Your task to perform on an android device: Where can I buy a nice beach sandals? Image 0: 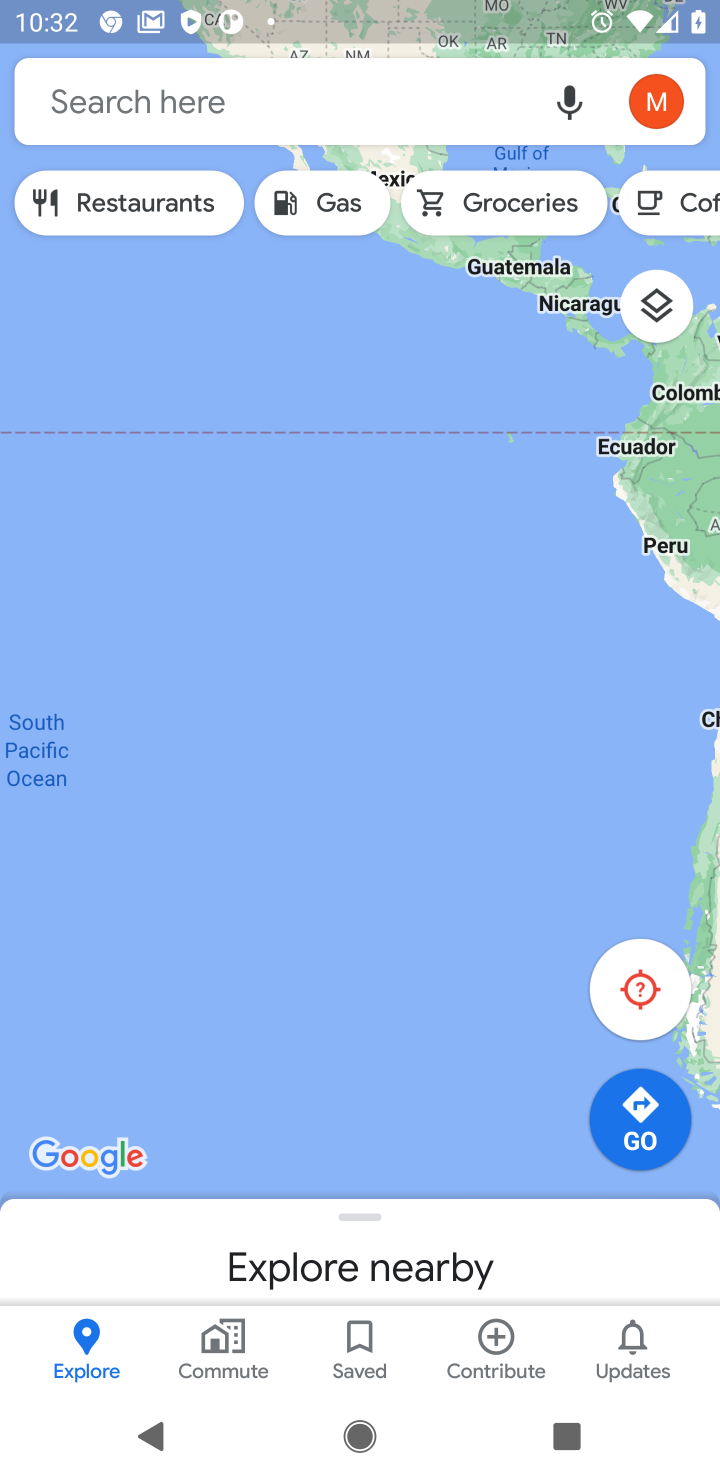
Step 0: press home button
Your task to perform on an android device: Where can I buy a nice beach sandals? Image 1: 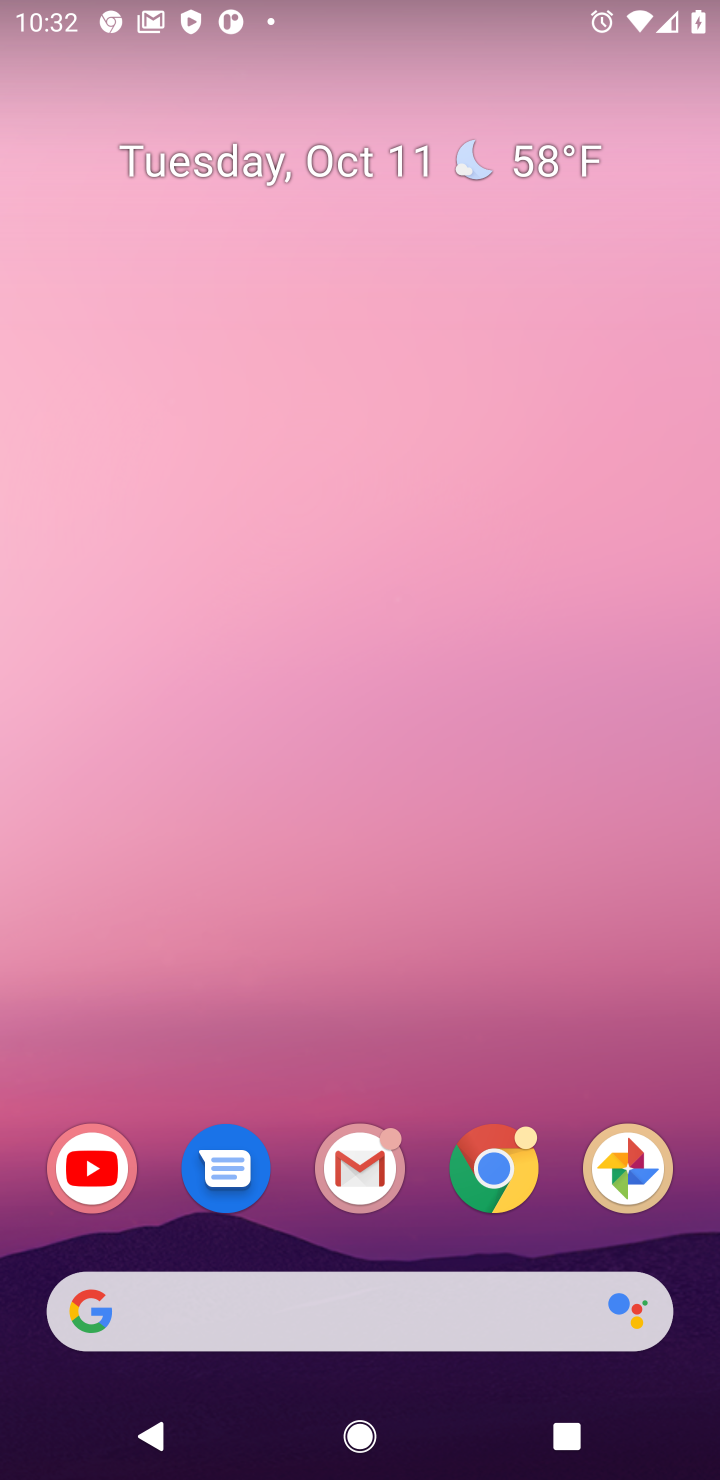
Step 1: click (482, 1192)
Your task to perform on an android device: Where can I buy a nice beach sandals? Image 2: 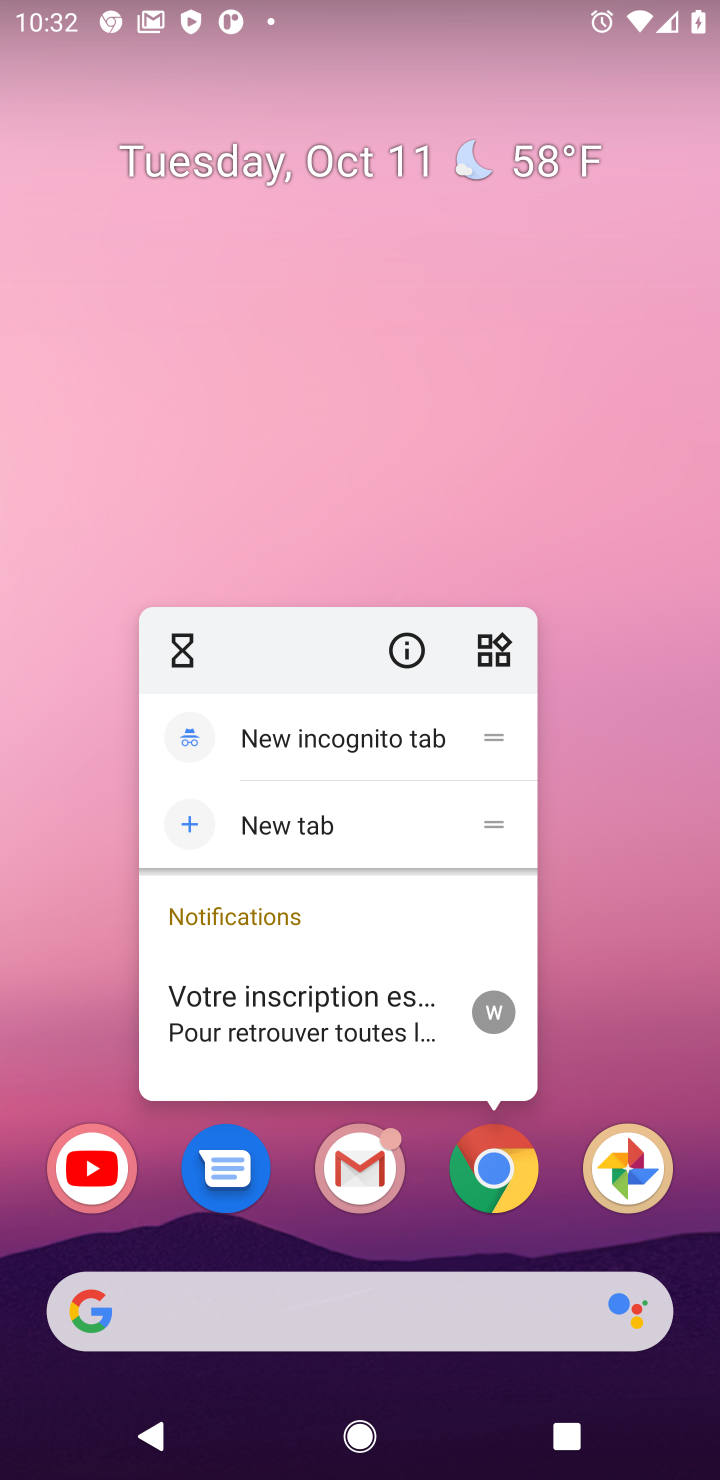
Step 2: press back button
Your task to perform on an android device: Where can I buy a nice beach sandals? Image 3: 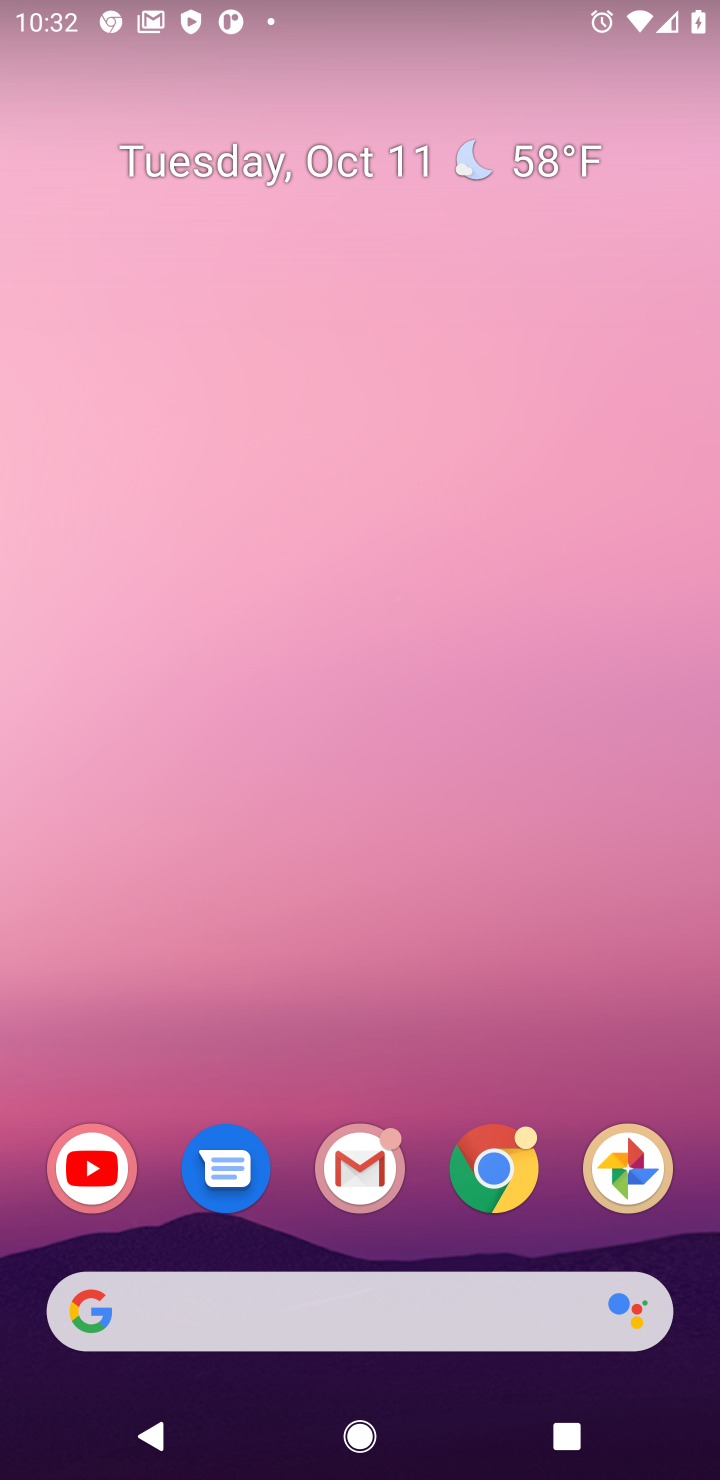
Step 3: press home button
Your task to perform on an android device: Where can I buy a nice beach sandals? Image 4: 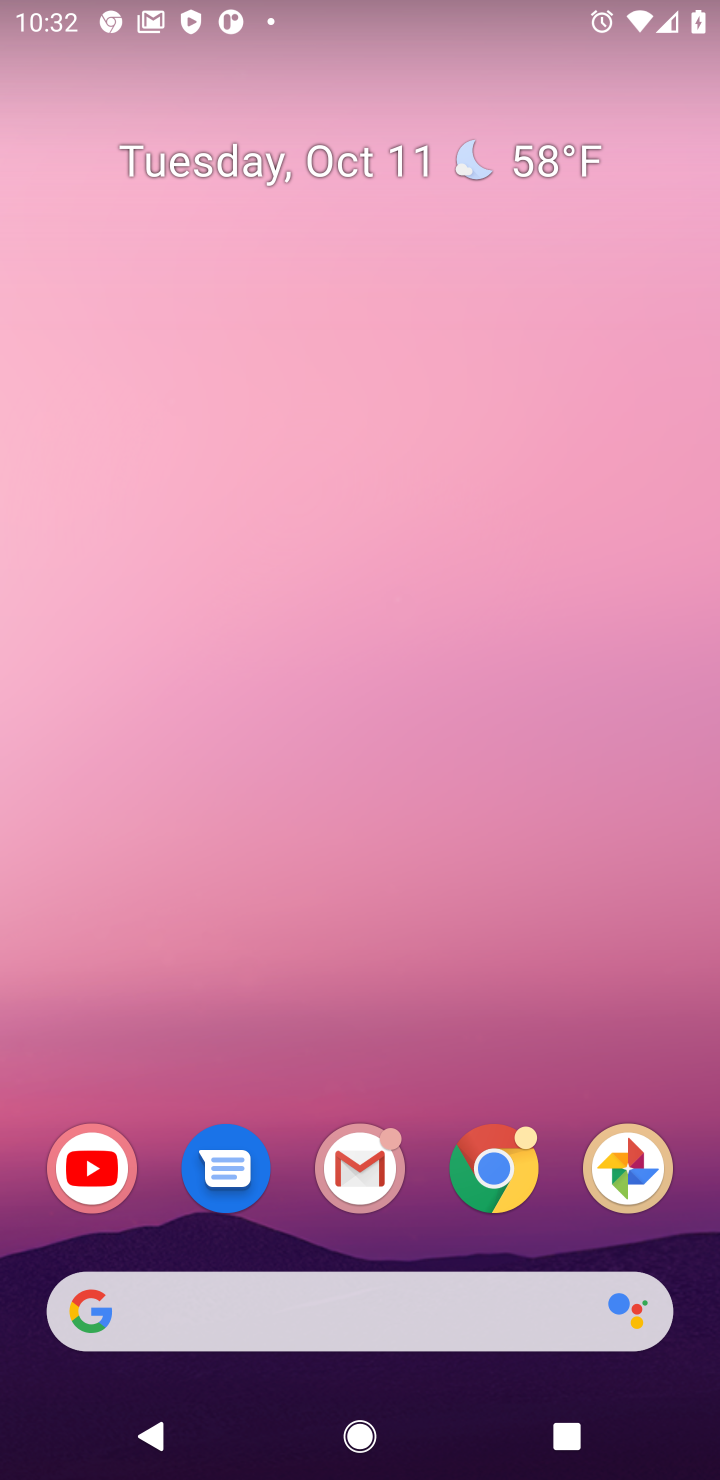
Step 4: click (500, 1181)
Your task to perform on an android device: Where can I buy a nice beach sandals? Image 5: 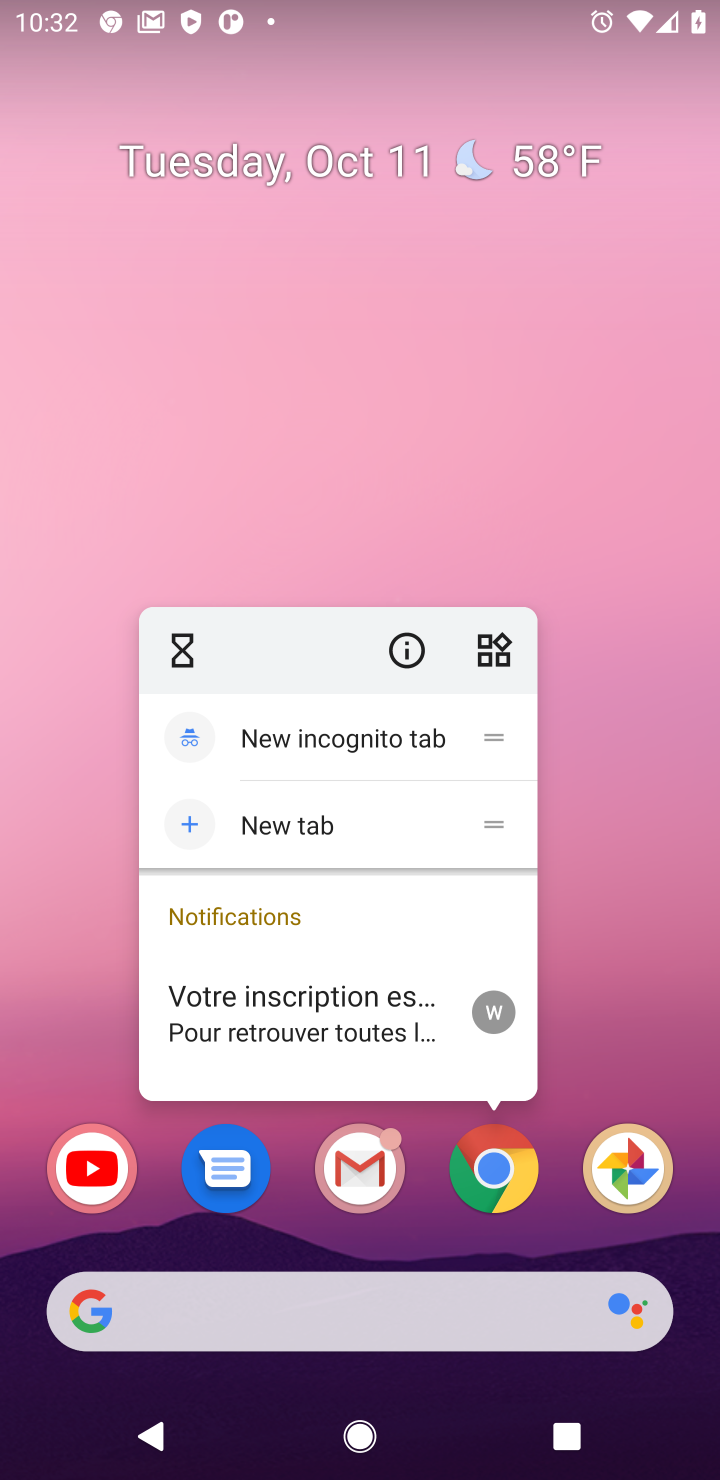
Step 5: click (483, 1162)
Your task to perform on an android device: Where can I buy a nice beach sandals? Image 6: 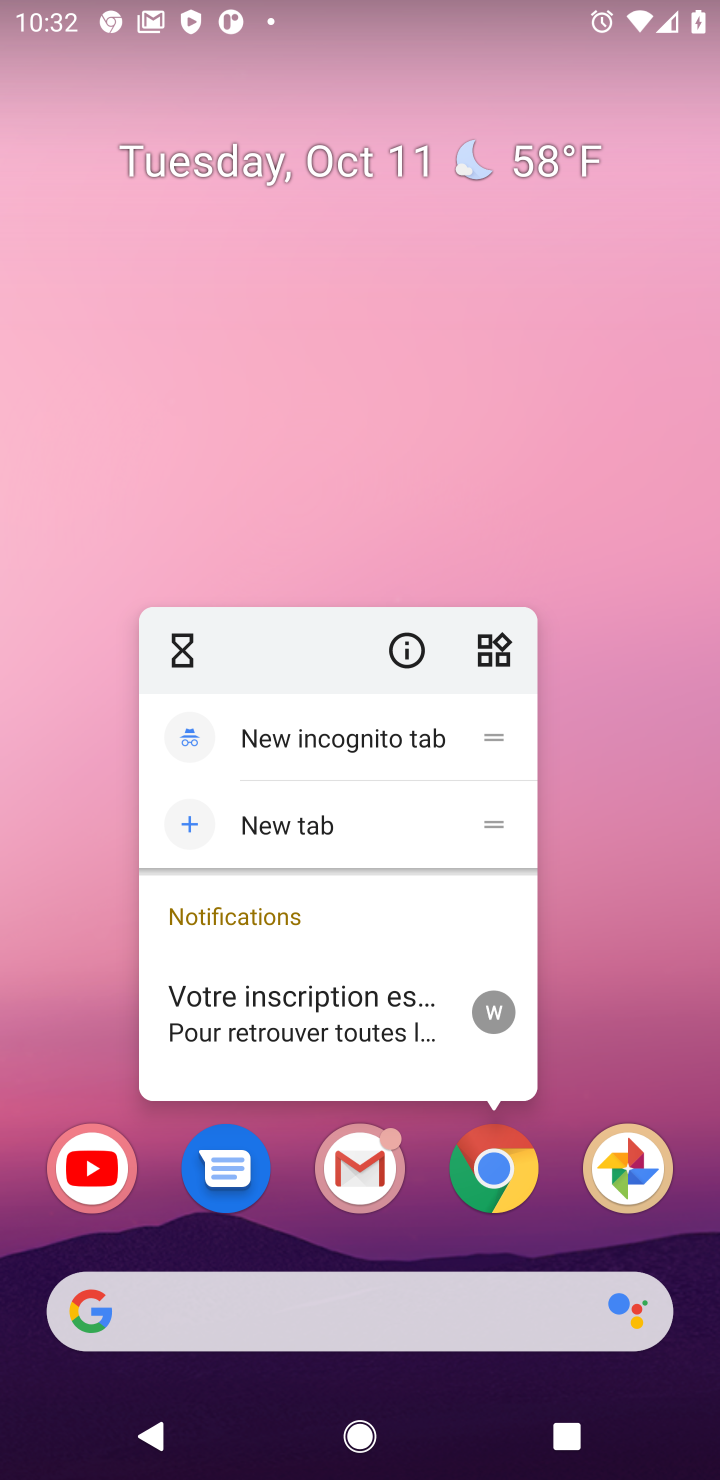
Step 6: click (492, 1155)
Your task to perform on an android device: Where can I buy a nice beach sandals? Image 7: 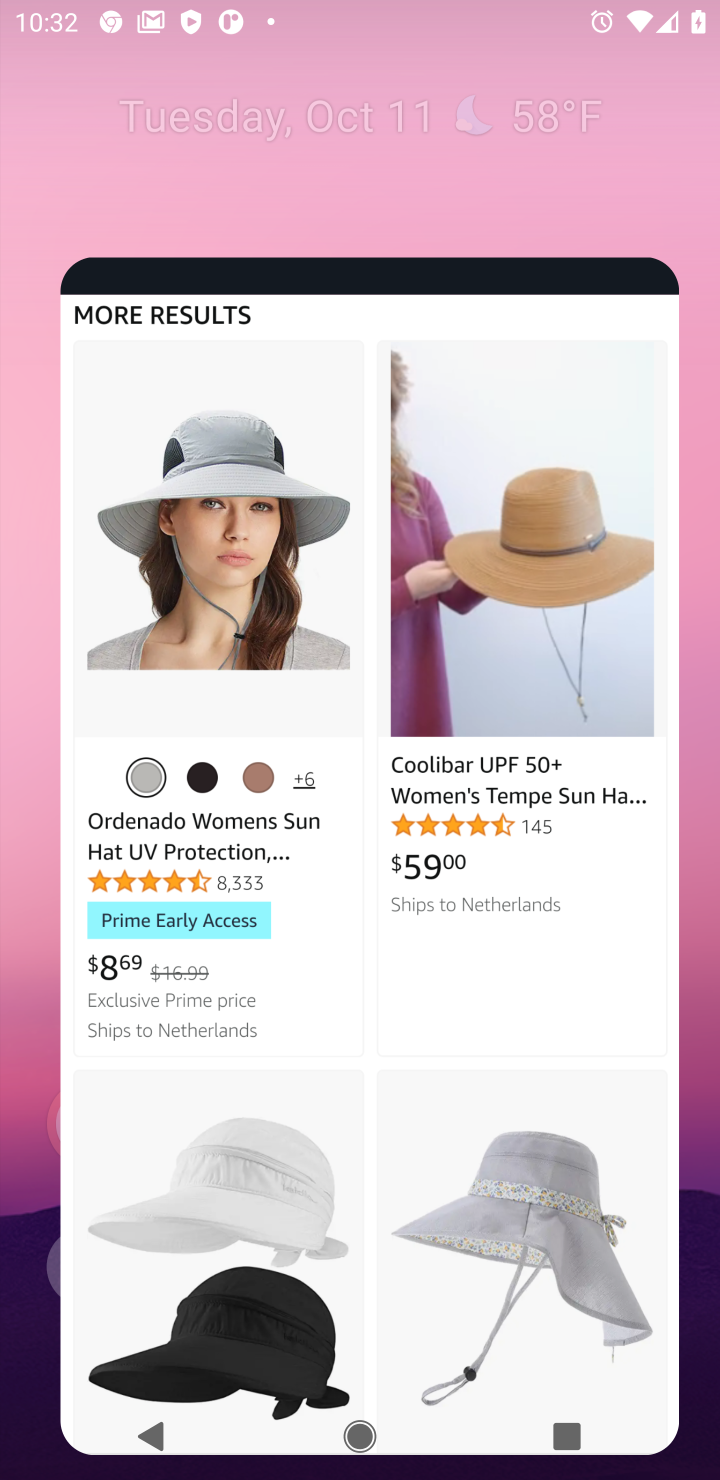
Step 7: press home button
Your task to perform on an android device: Where can I buy a nice beach sandals? Image 8: 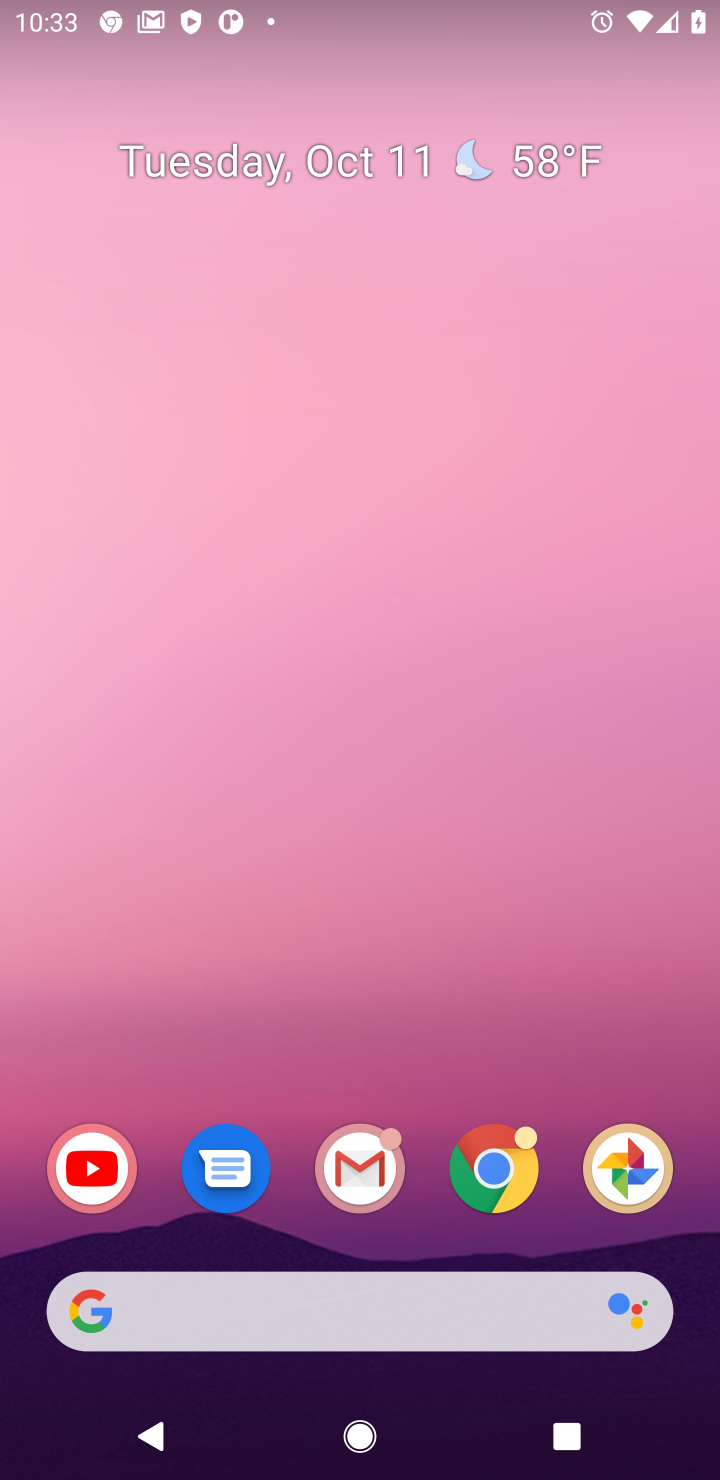
Step 8: click (511, 1177)
Your task to perform on an android device: Where can I buy a nice beach sandals? Image 9: 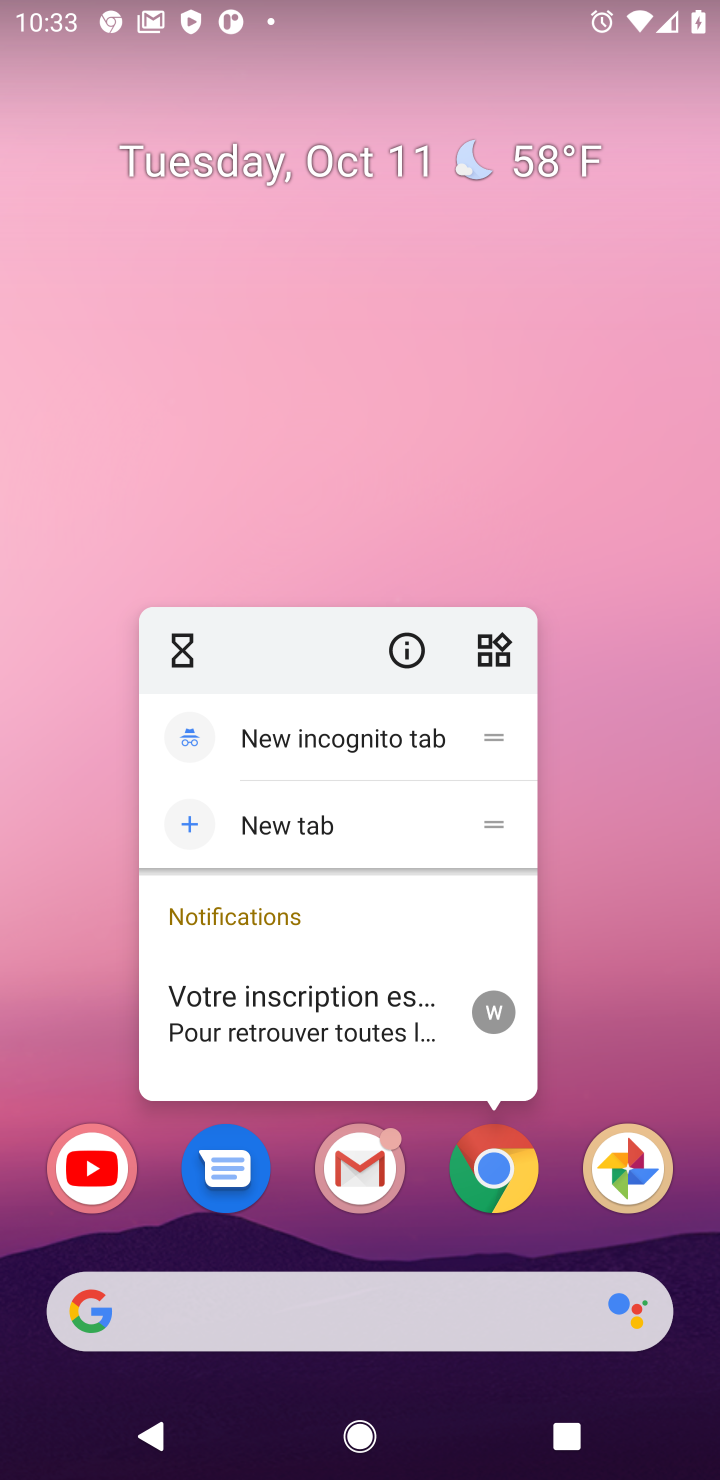
Step 9: click (483, 1159)
Your task to perform on an android device: Where can I buy a nice beach sandals? Image 10: 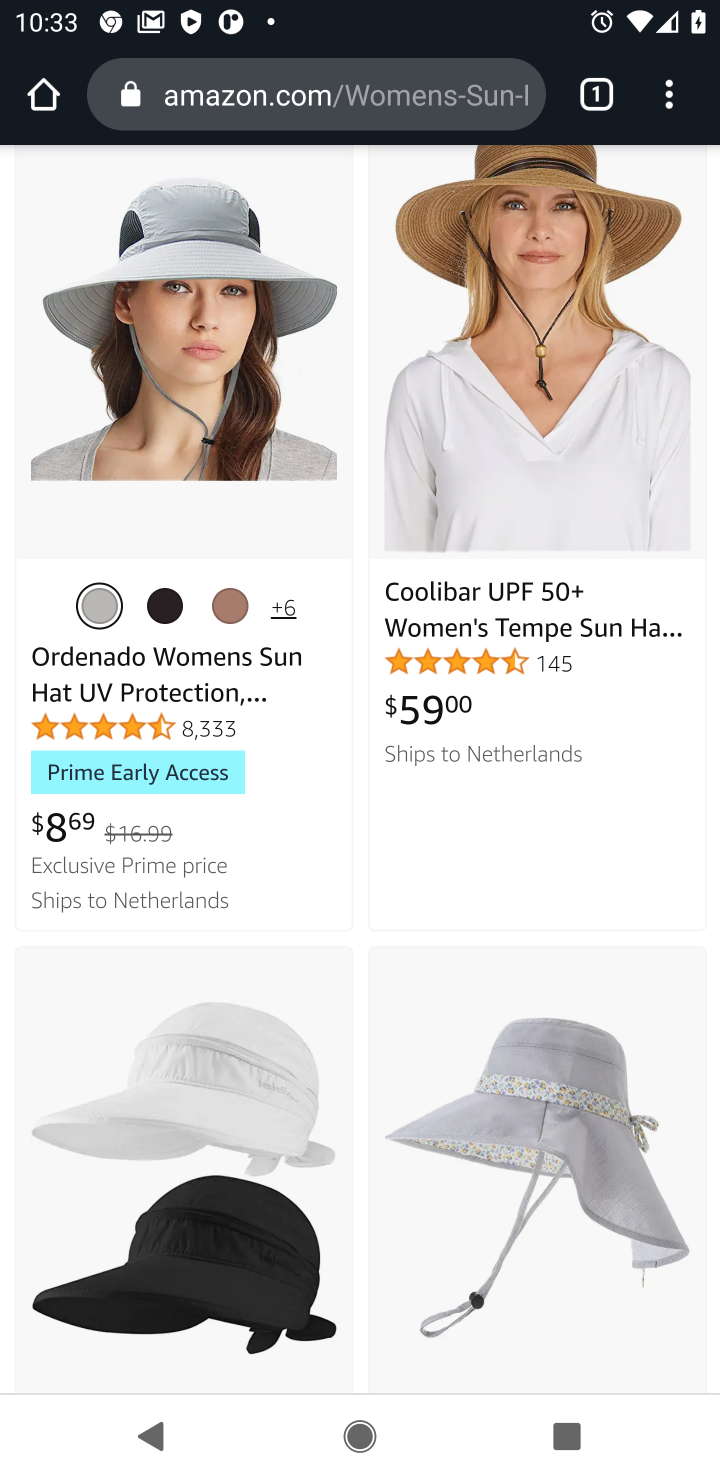
Step 10: click (286, 97)
Your task to perform on an android device: Where can I buy a nice beach sandals? Image 11: 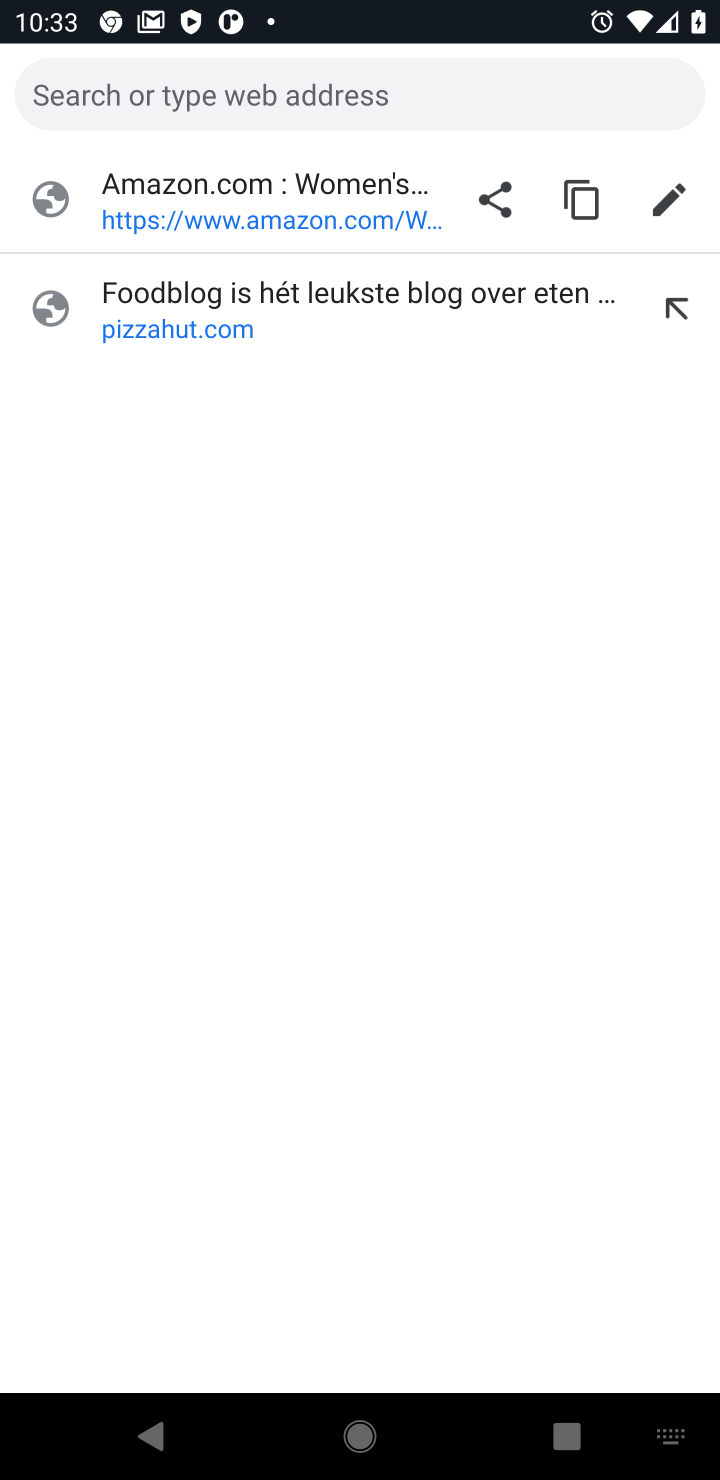
Step 11: type "where can i buy nice beach sandals"
Your task to perform on an android device: Where can I buy a nice beach sandals? Image 12: 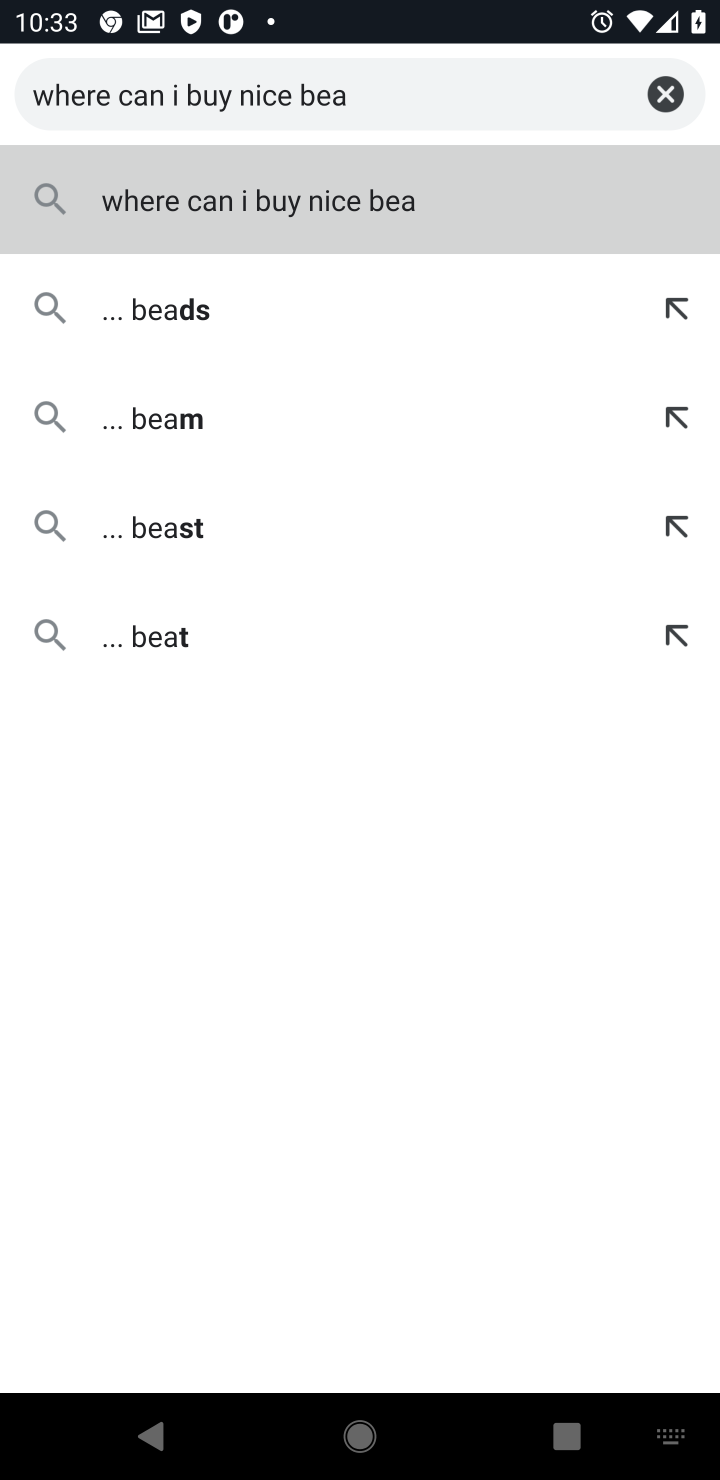
Step 12: click (302, 205)
Your task to perform on an android device: Where can I buy a nice beach sandals? Image 13: 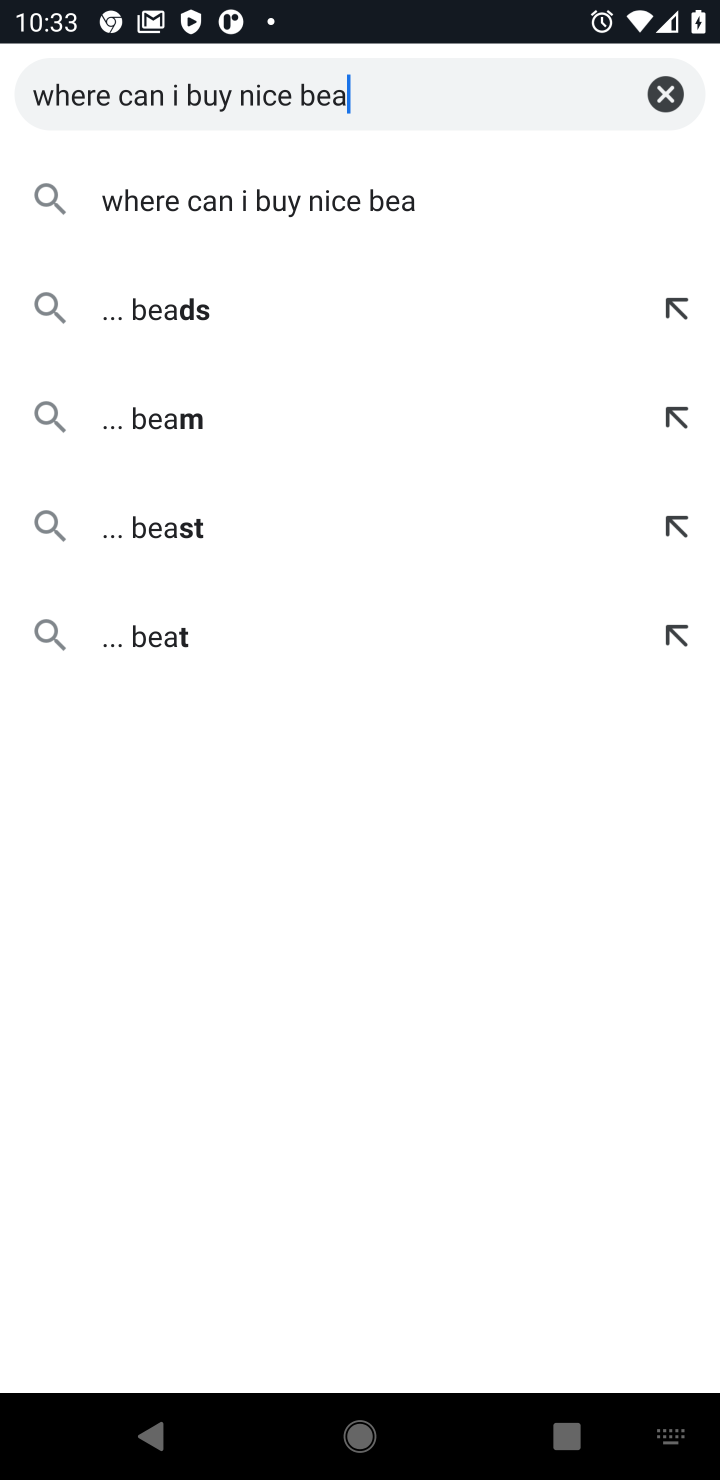
Step 13: click (672, 94)
Your task to perform on an android device: Where can I buy a nice beach sandals? Image 14: 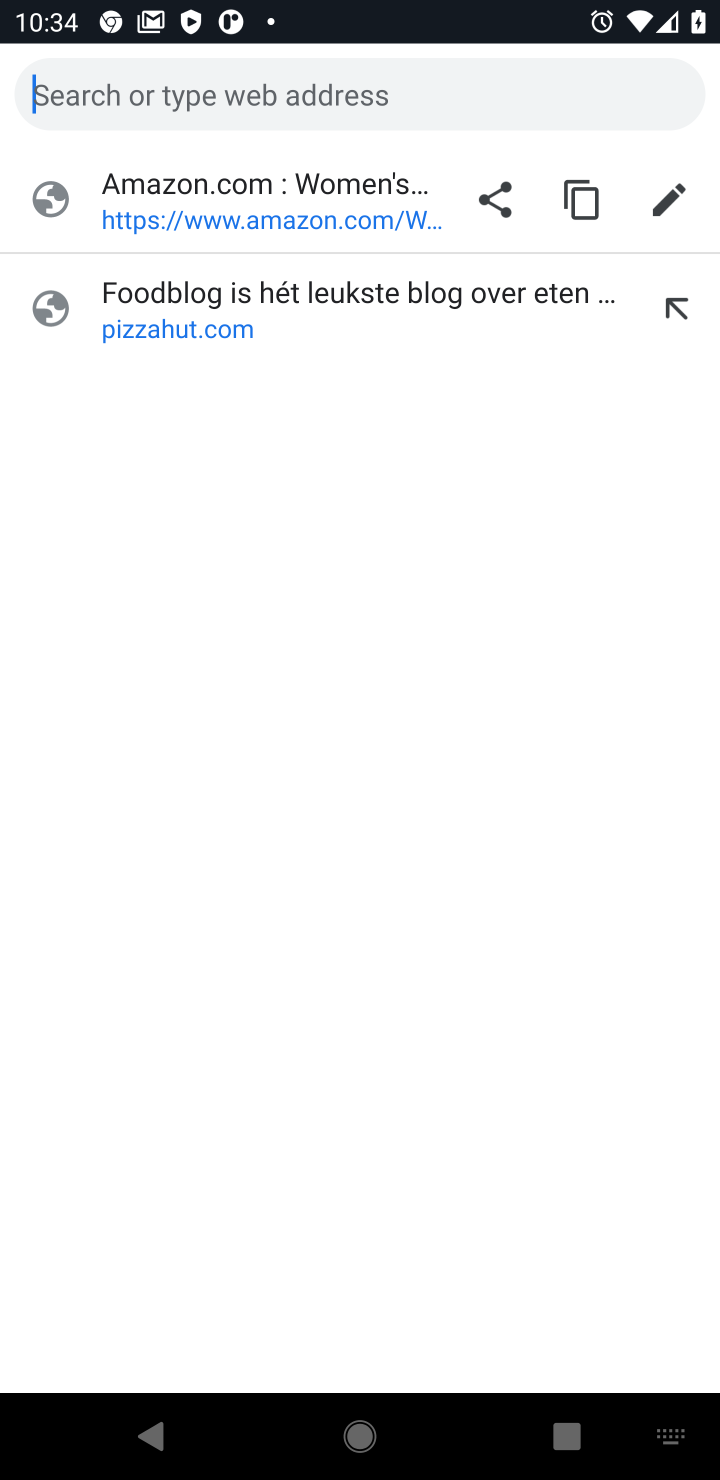
Step 14: type "where can i buy a nice beach sandals"
Your task to perform on an android device: Where can I buy a nice beach sandals? Image 15: 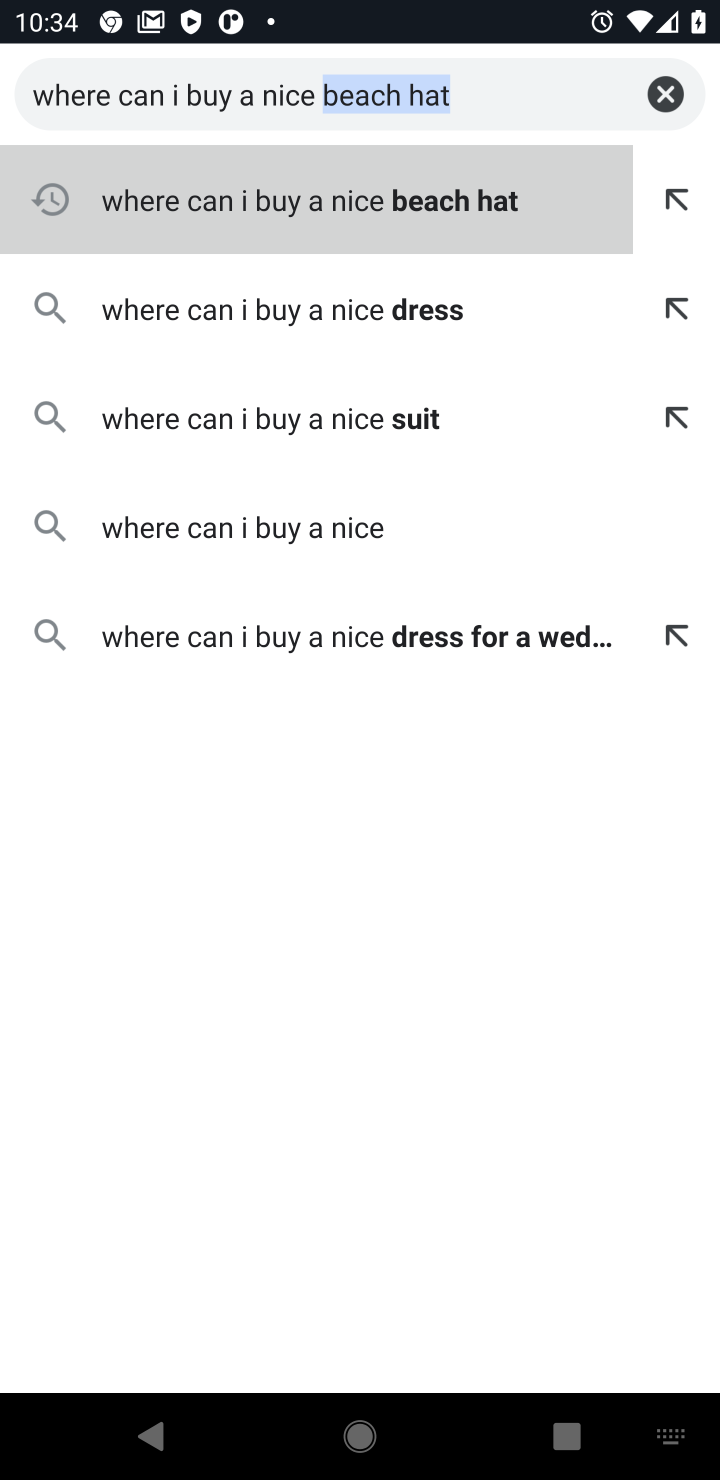
Step 15: click (472, 89)
Your task to perform on an android device: Where can I buy a nice beach sandals? Image 16: 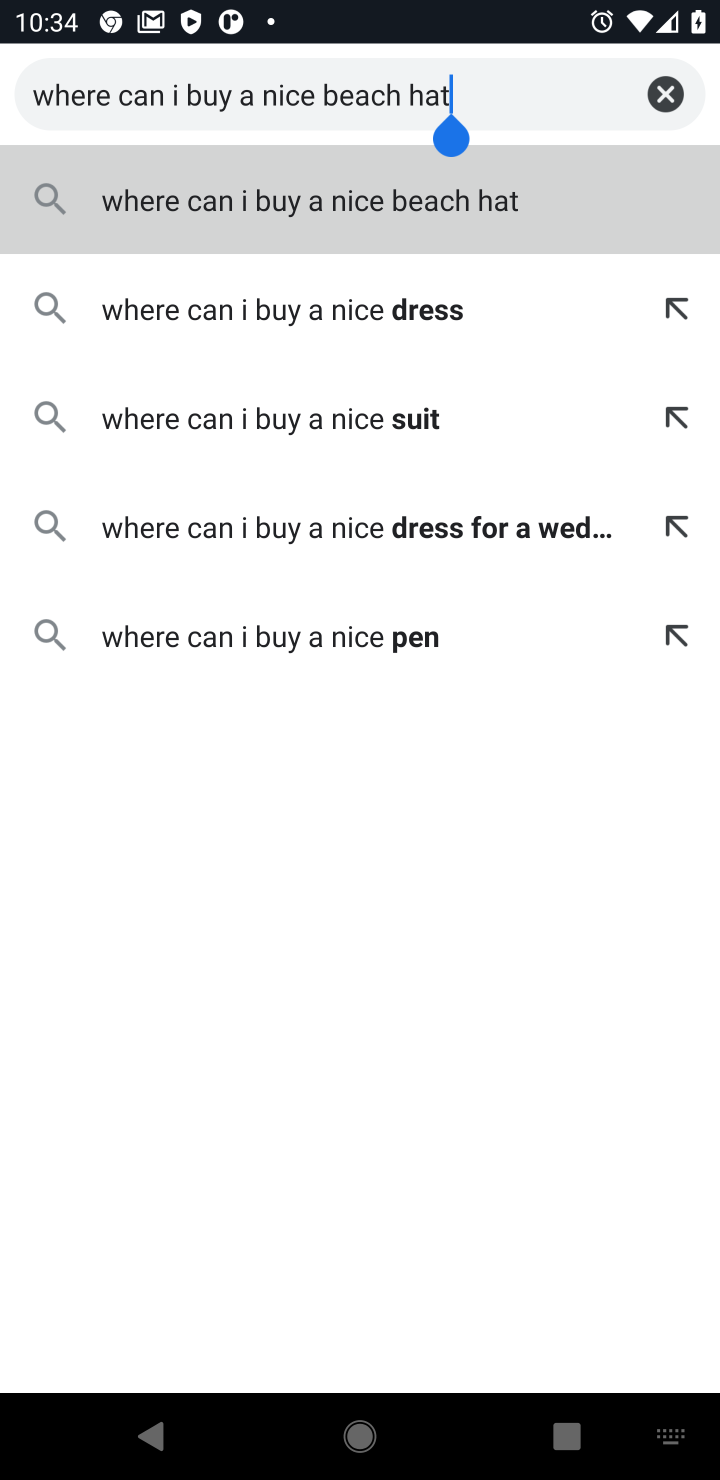
Step 16: click (668, 100)
Your task to perform on an android device: Where can I buy a nice beach sandals? Image 17: 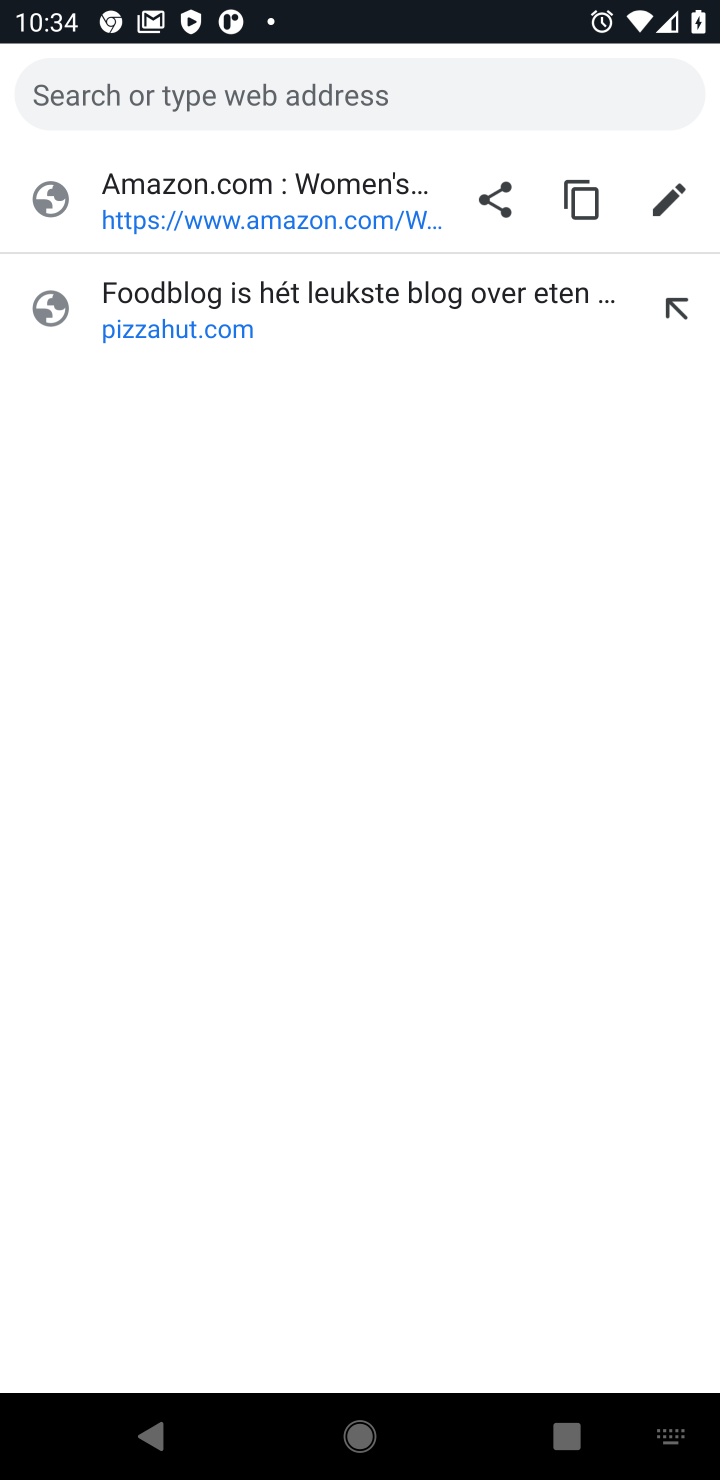
Step 17: type "where can i buy a nice beach sandals"
Your task to perform on an android device: Where can I buy a nice beach sandals? Image 18: 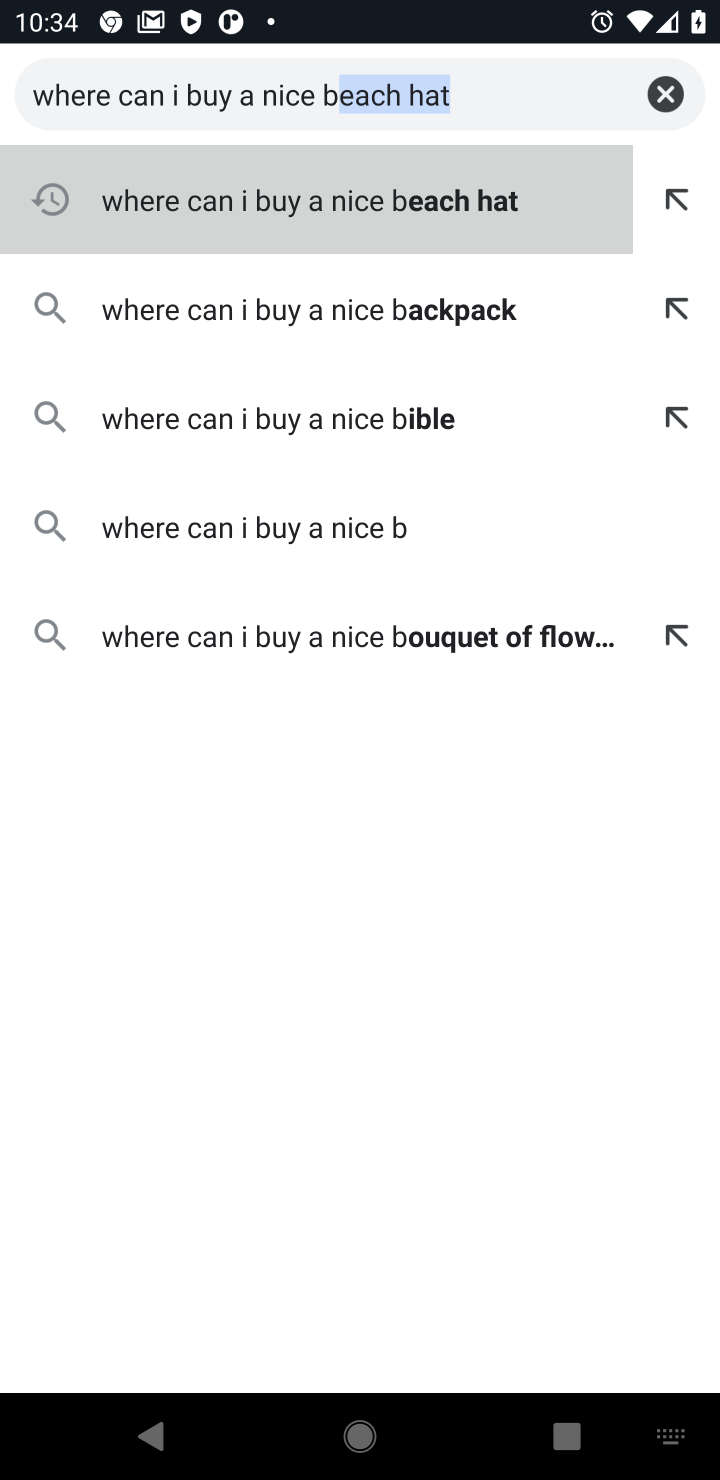
Step 18: click (476, 627)
Your task to perform on an android device: Where can I buy a nice beach sandals? Image 19: 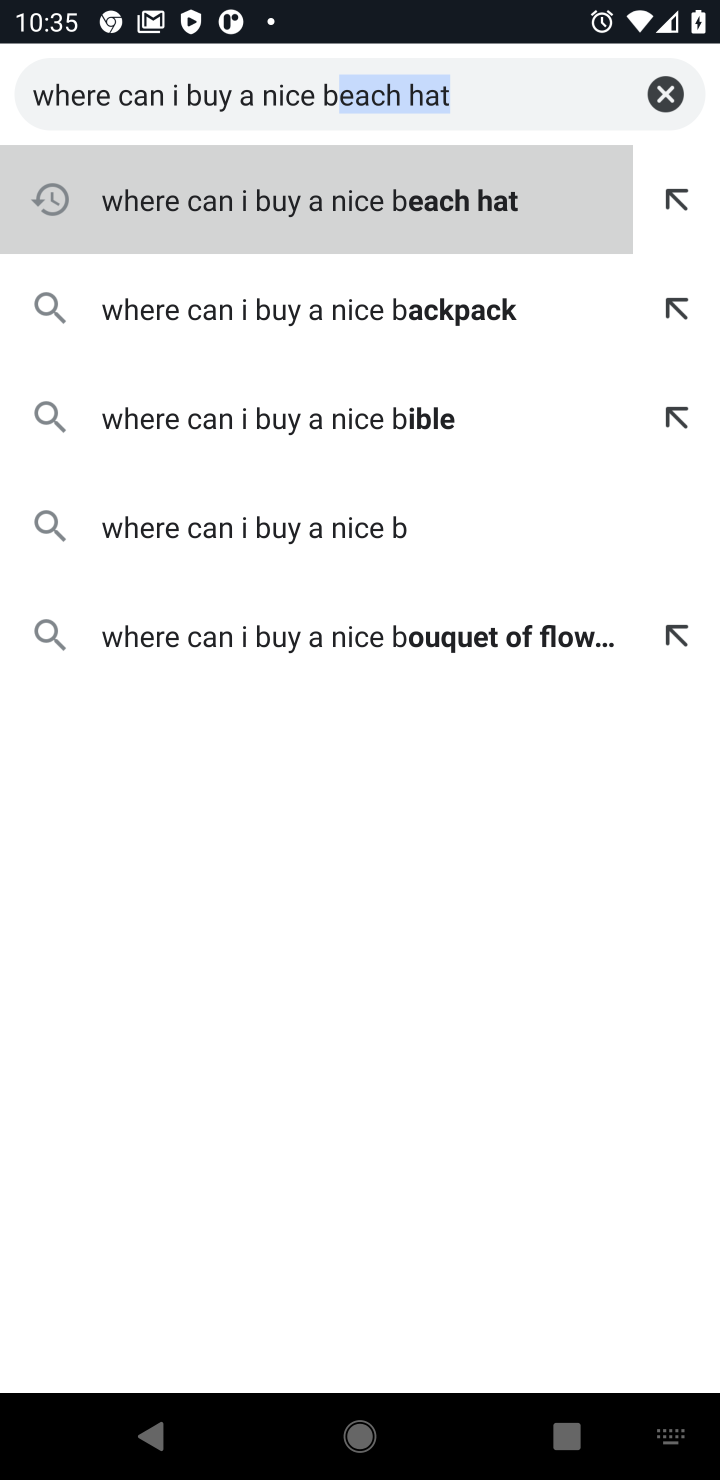
Step 19: click (479, 623)
Your task to perform on an android device: Where can I buy a nice beach sandals? Image 20: 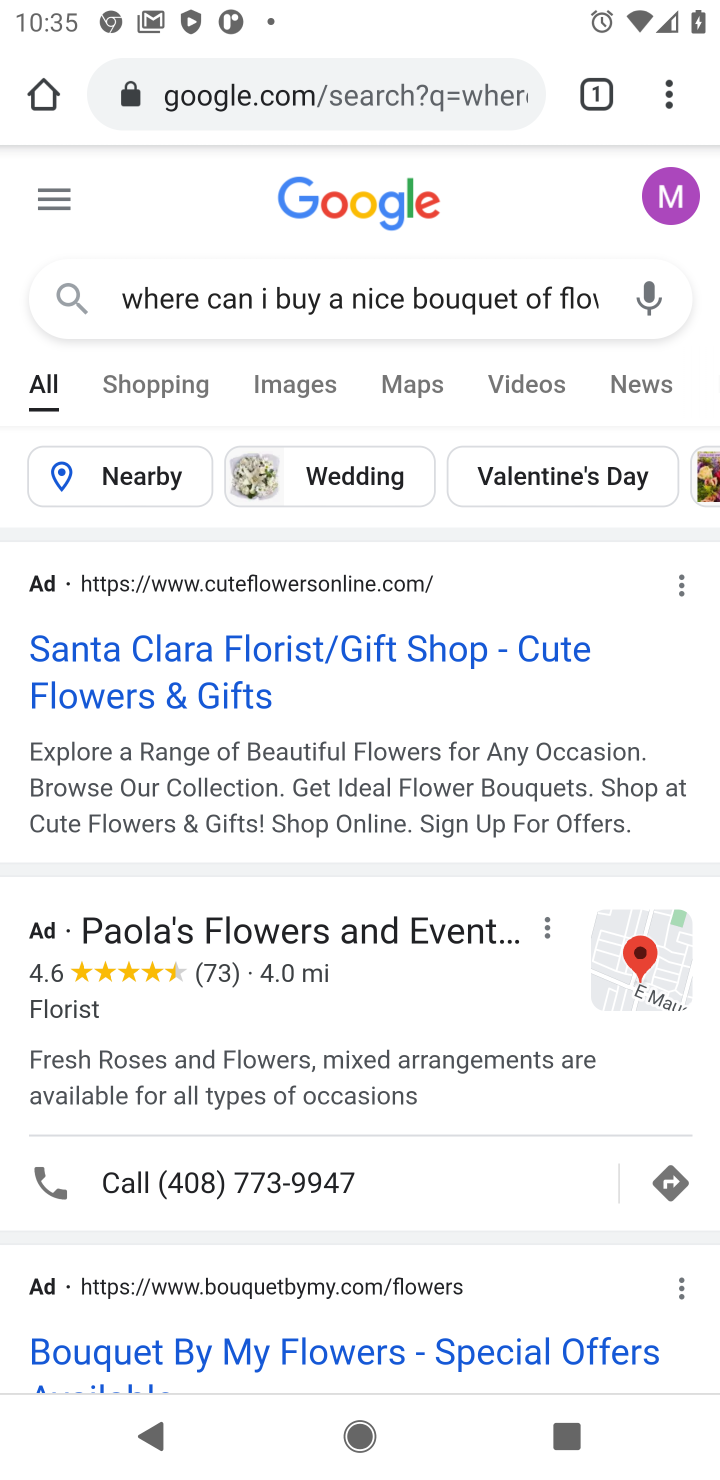
Step 20: task complete